Your task to perform on an android device: Open CNN.com Image 0: 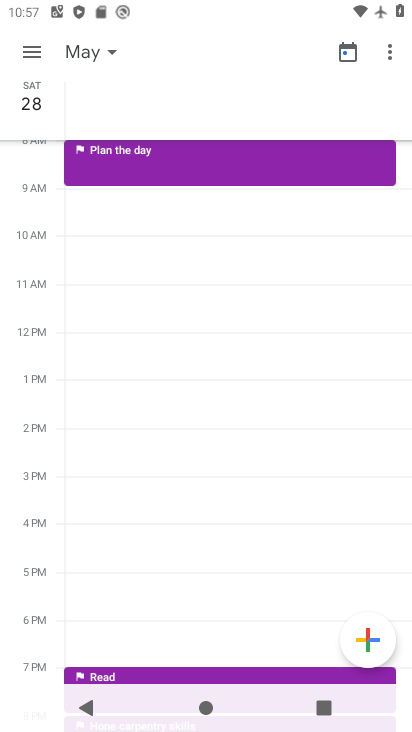
Step 0: press home button
Your task to perform on an android device: Open CNN.com Image 1: 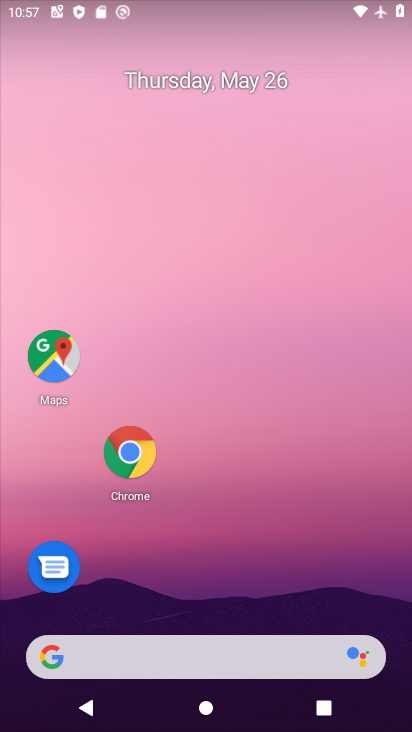
Step 1: click (136, 459)
Your task to perform on an android device: Open CNN.com Image 2: 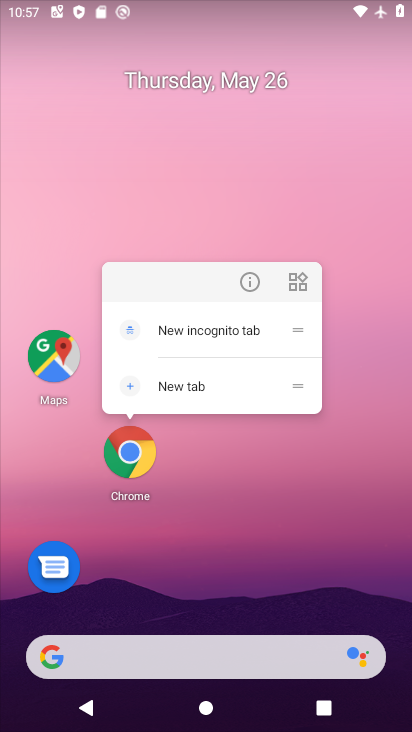
Step 2: click (126, 462)
Your task to perform on an android device: Open CNN.com Image 3: 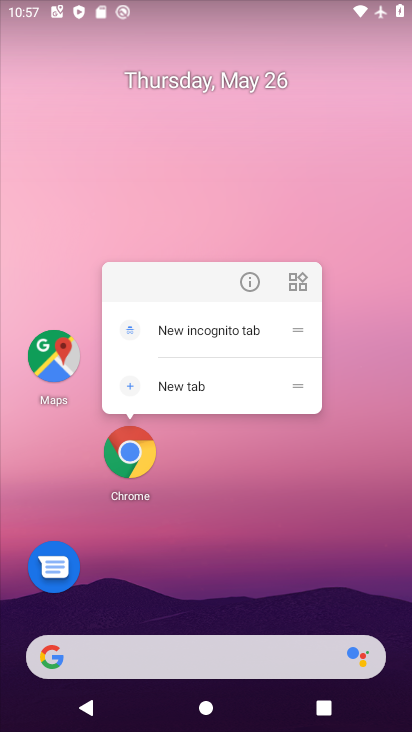
Step 3: click (126, 457)
Your task to perform on an android device: Open CNN.com Image 4: 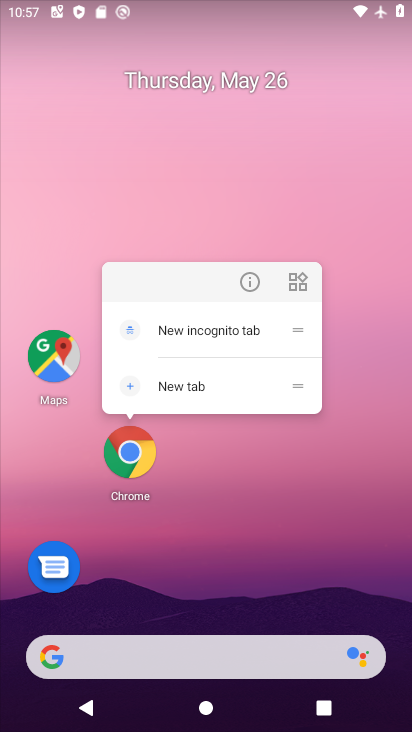
Step 4: click (127, 470)
Your task to perform on an android device: Open CNN.com Image 5: 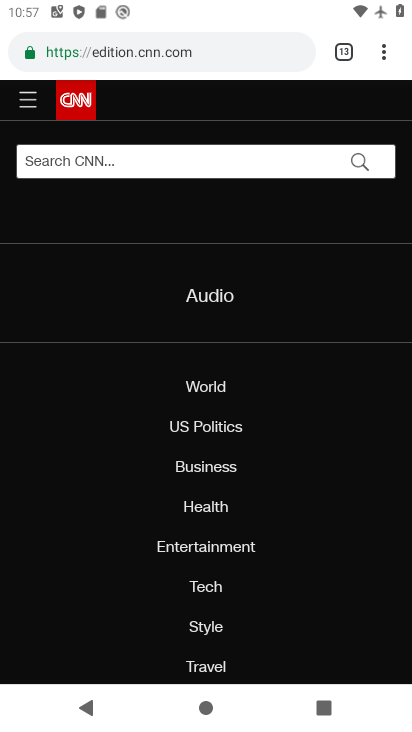
Step 5: task complete